Your task to perform on an android device: Open the phone app and click the voicemail tab. Image 0: 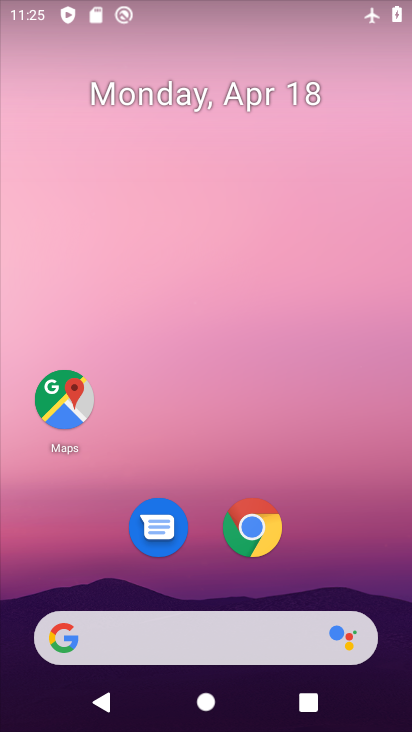
Step 0: drag from (348, 582) to (357, 95)
Your task to perform on an android device: Open the phone app and click the voicemail tab. Image 1: 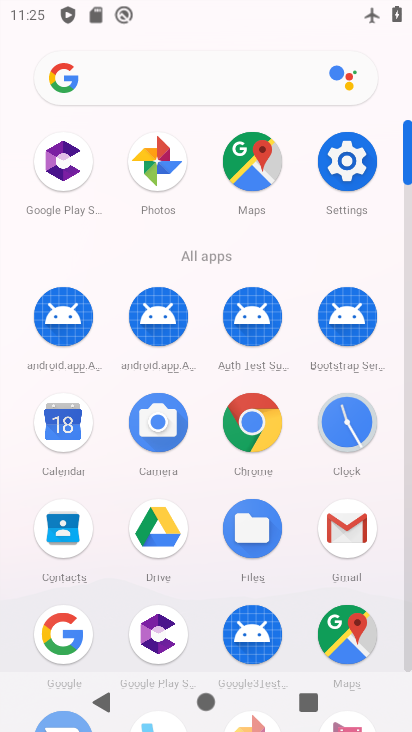
Step 1: drag from (195, 583) to (230, 363)
Your task to perform on an android device: Open the phone app and click the voicemail tab. Image 2: 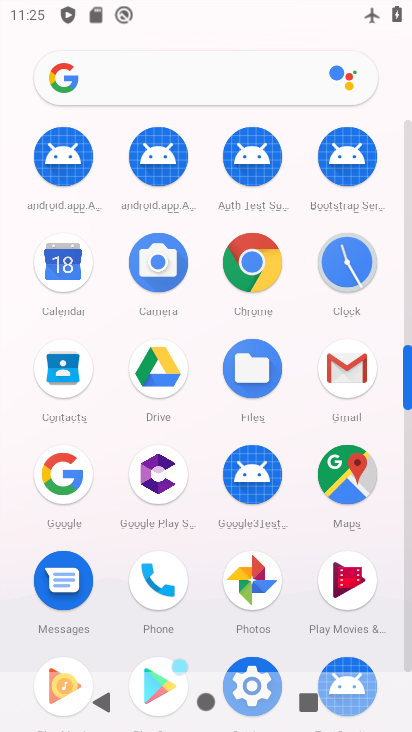
Step 2: click (145, 567)
Your task to perform on an android device: Open the phone app and click the voicemail tab. Image 3: 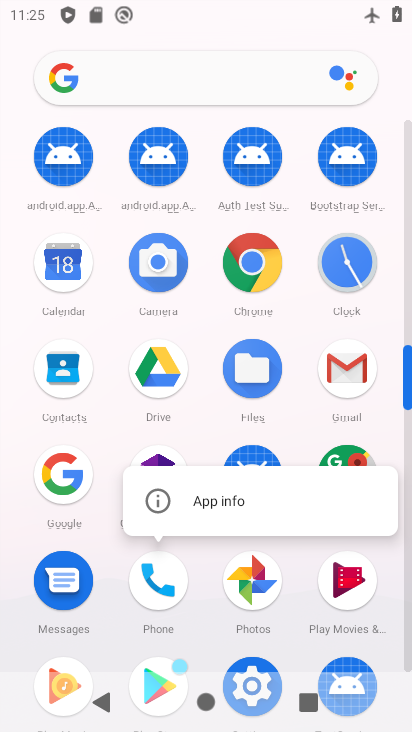
Step 3: click (145, 567)
Your task to perform on an android device: Open the phone app and click the voicemail tab. Image 4: 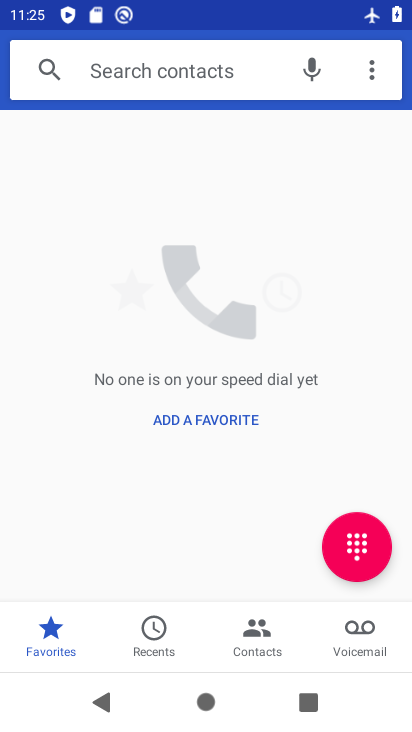
Step 4: click (359, 644)
Your task to perform on an android device: Open the phone app and click the voicemail tab. Image 5: 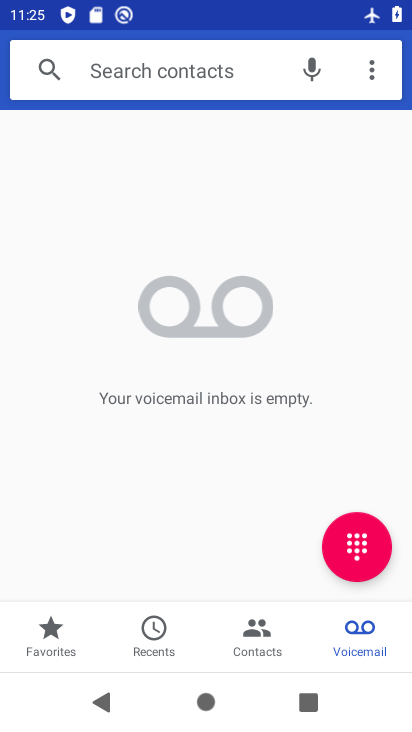
Step 5: task complete